Your task to perform on an android device: allow notifications from all sites in the chrome app Image 0: 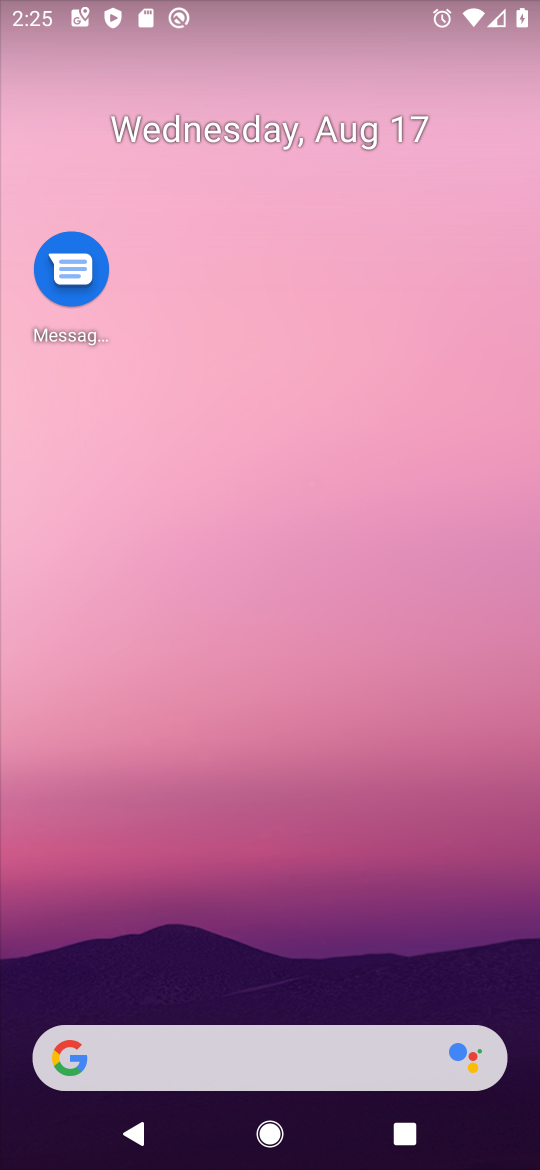
Step 0: drag from (200, 827) to (267, 17)
Your task to perform on an android device: allow notifications from all sites in the chrome app Image 1: 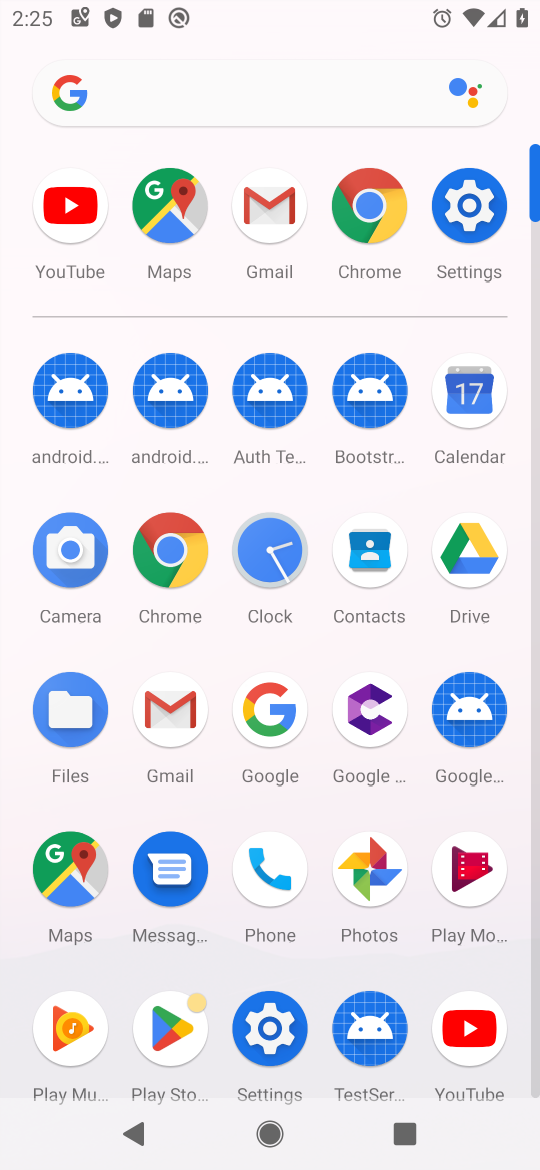
Step 1: click (360, 224)
Your task to perform on an android device: allow notifications from all sites in the chrome app Image 2: 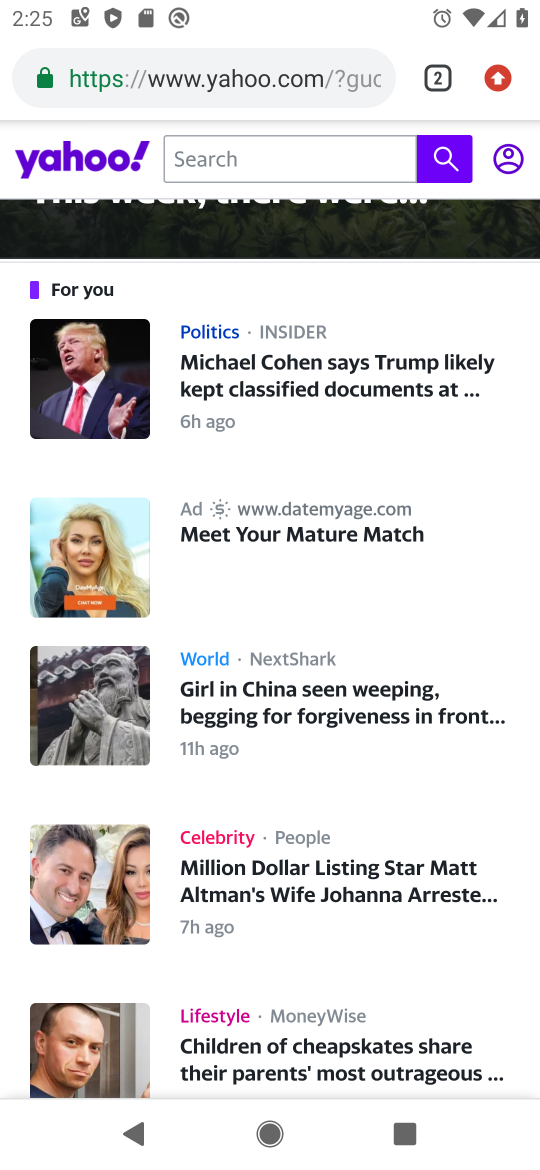
Step 2: click (499, 86)
Your task to perform on an android device: allow notifications from all sites in the chrome app Image 3: 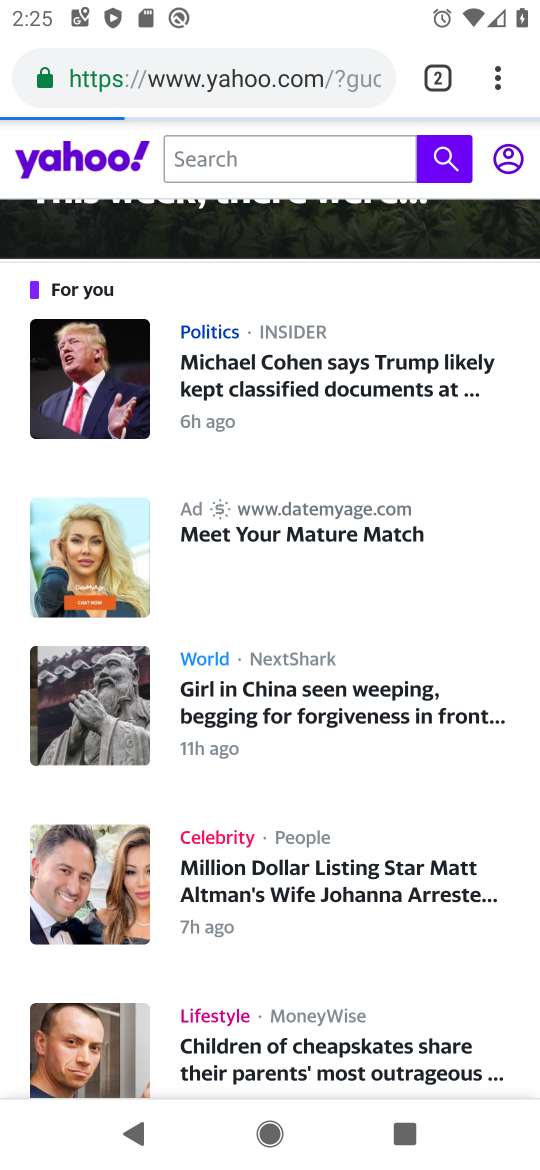
Step 3: drag from (496, 82) to (253, 975)
Your task to perform on an android device: allow notifications from all sites in the chrome app Image 4: 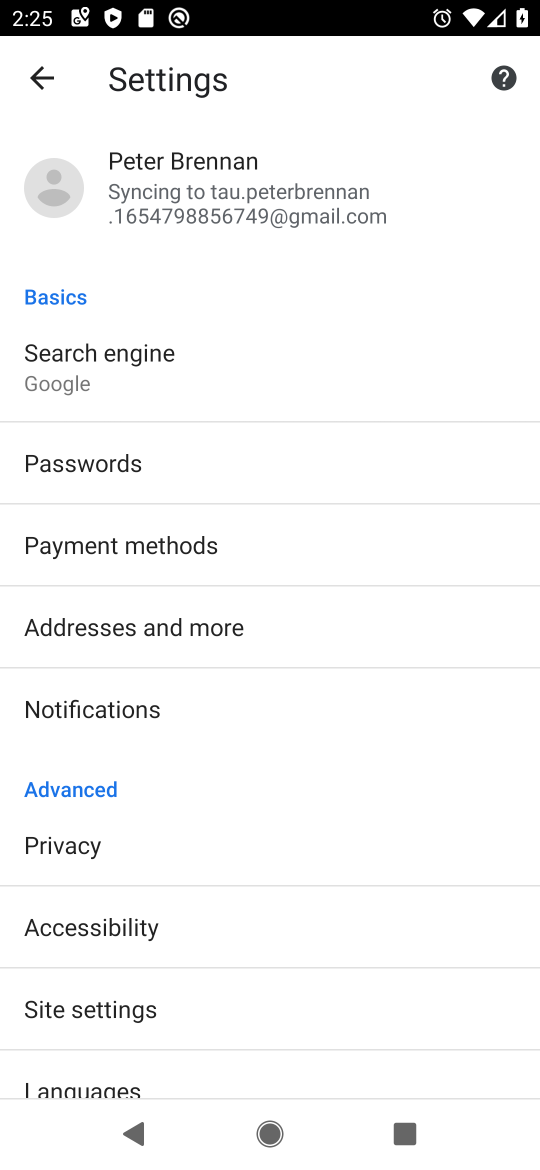
Step 4: drag from (145, 836) to (113, 347)
Your task to perform on an android device: allow notifications from all sites in the chrome app Image 5: 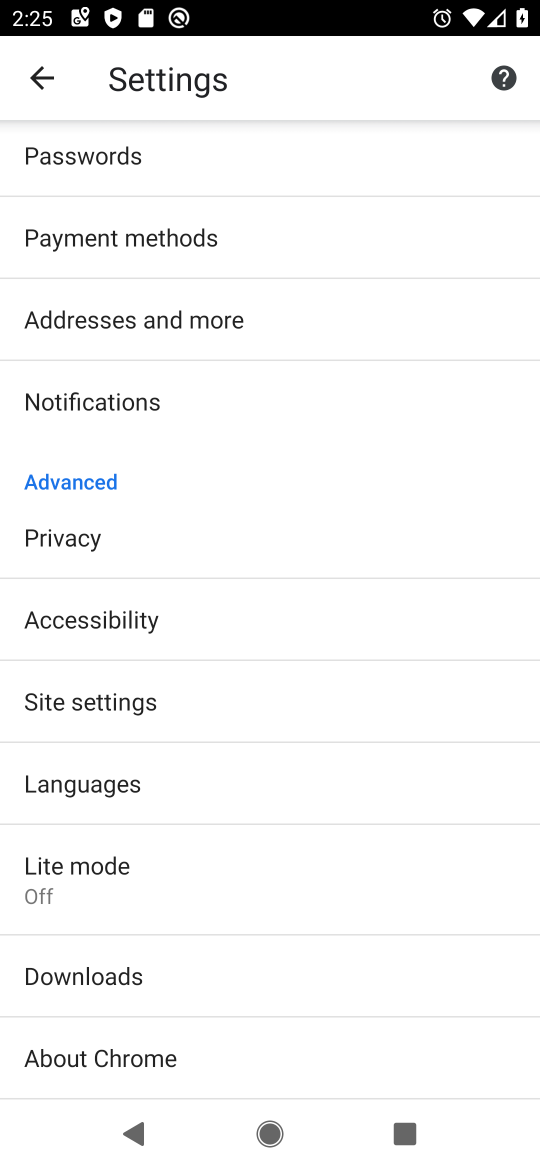
Step 5: click (78, 388)
Your task to perform on an android device: allow notifications from all sites in the chrome app Image 6: 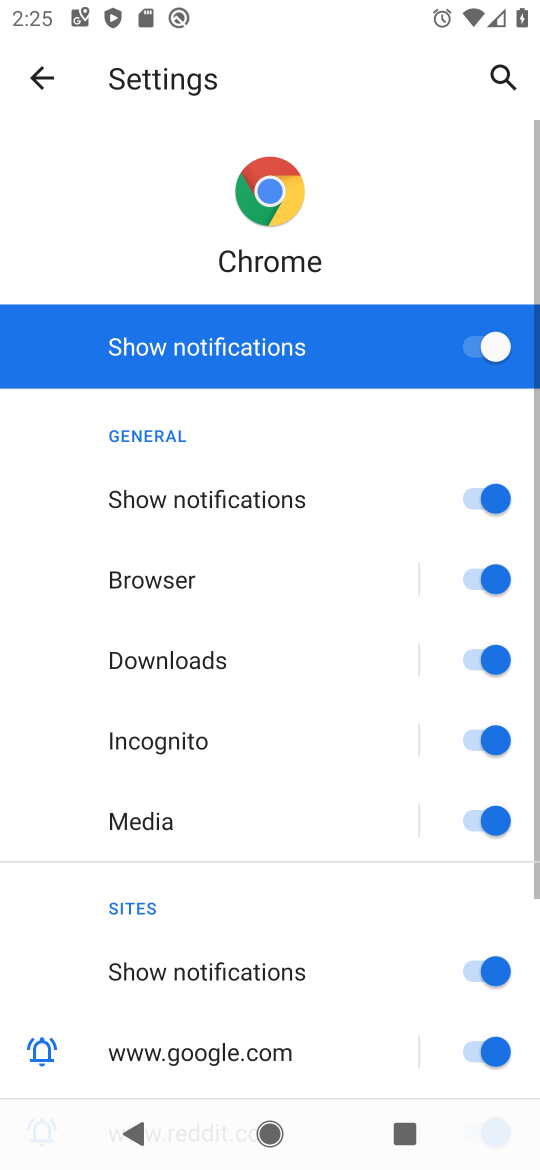
Step 6: click (34, 63)
Your task to perform on an android device: allow notifications from all sites in the chrome app Image 7: 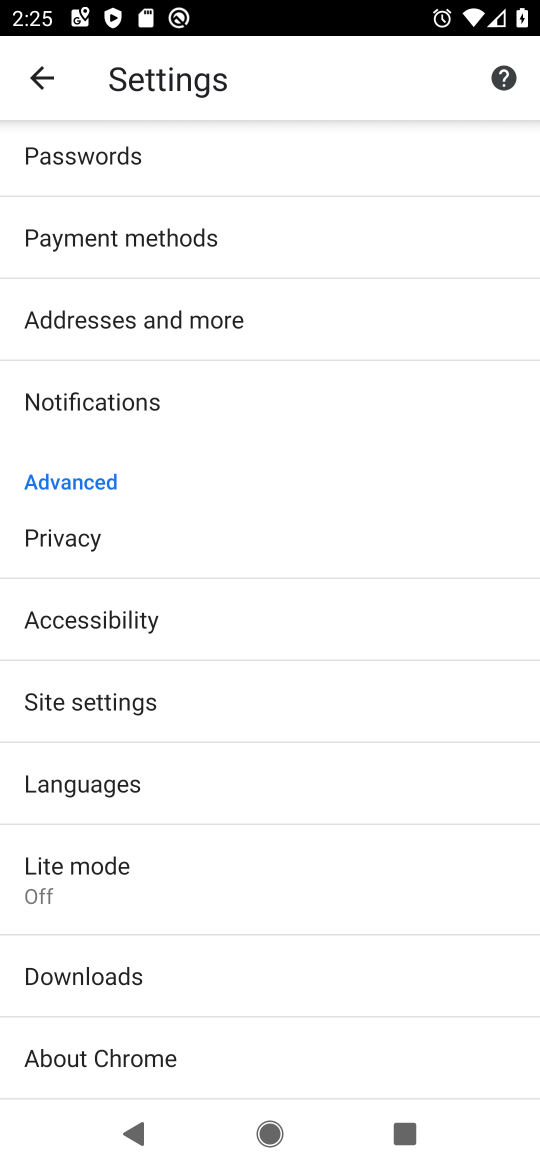
Step 7: click (140, 726)
Your task to perform on an android device: allow notifications from all sites in the chrome app Image 8: 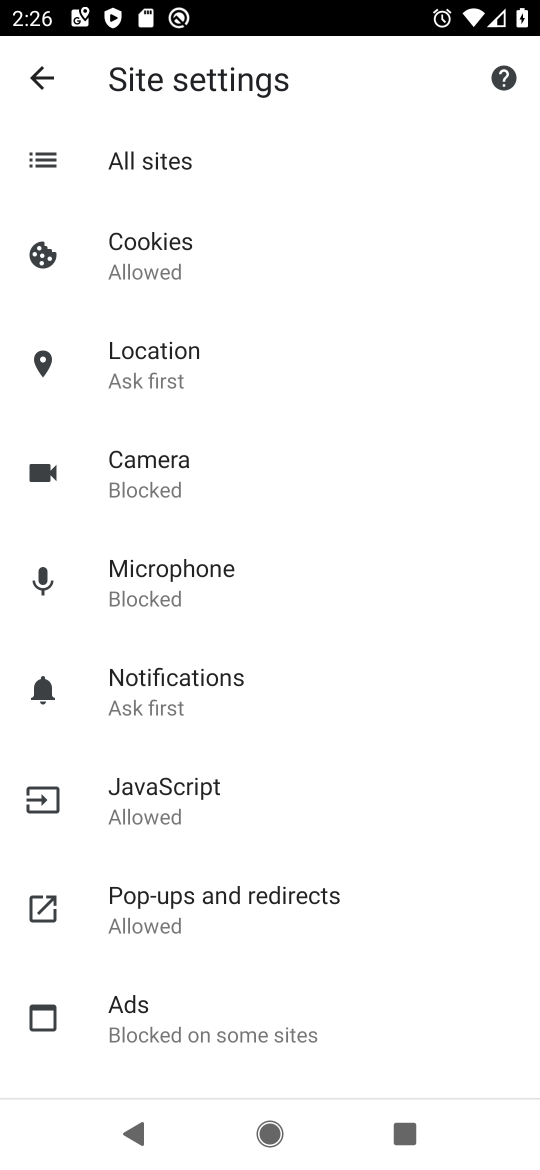
Step 8: click (174, 662)
Your task to perform on an android device: allow notifications from all sites in the chrome app Image 9: 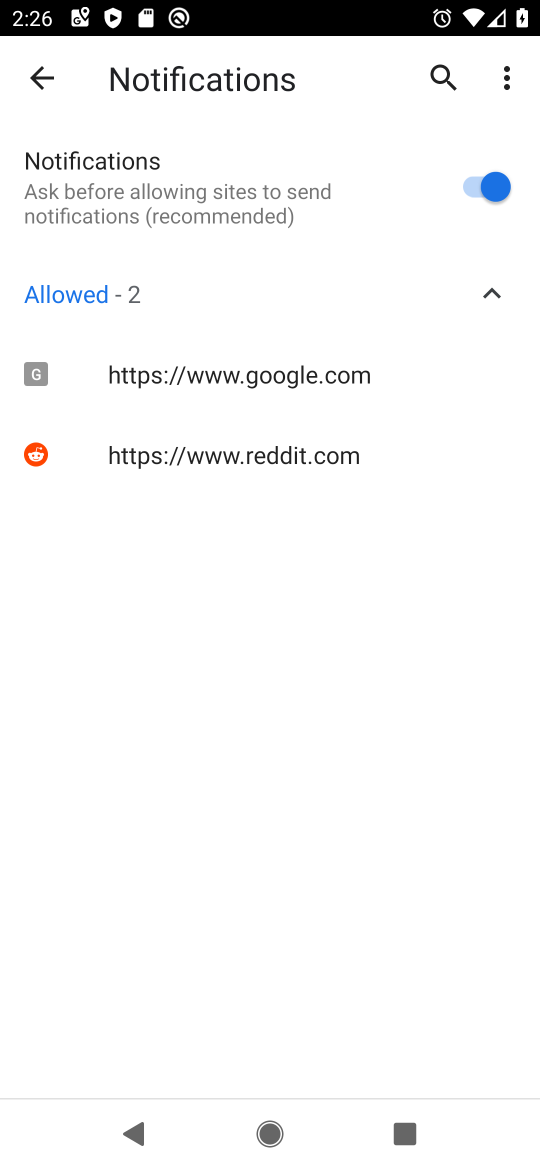
Step 9: task complete